Your task to perform on an android device: turn on location history Image 0: 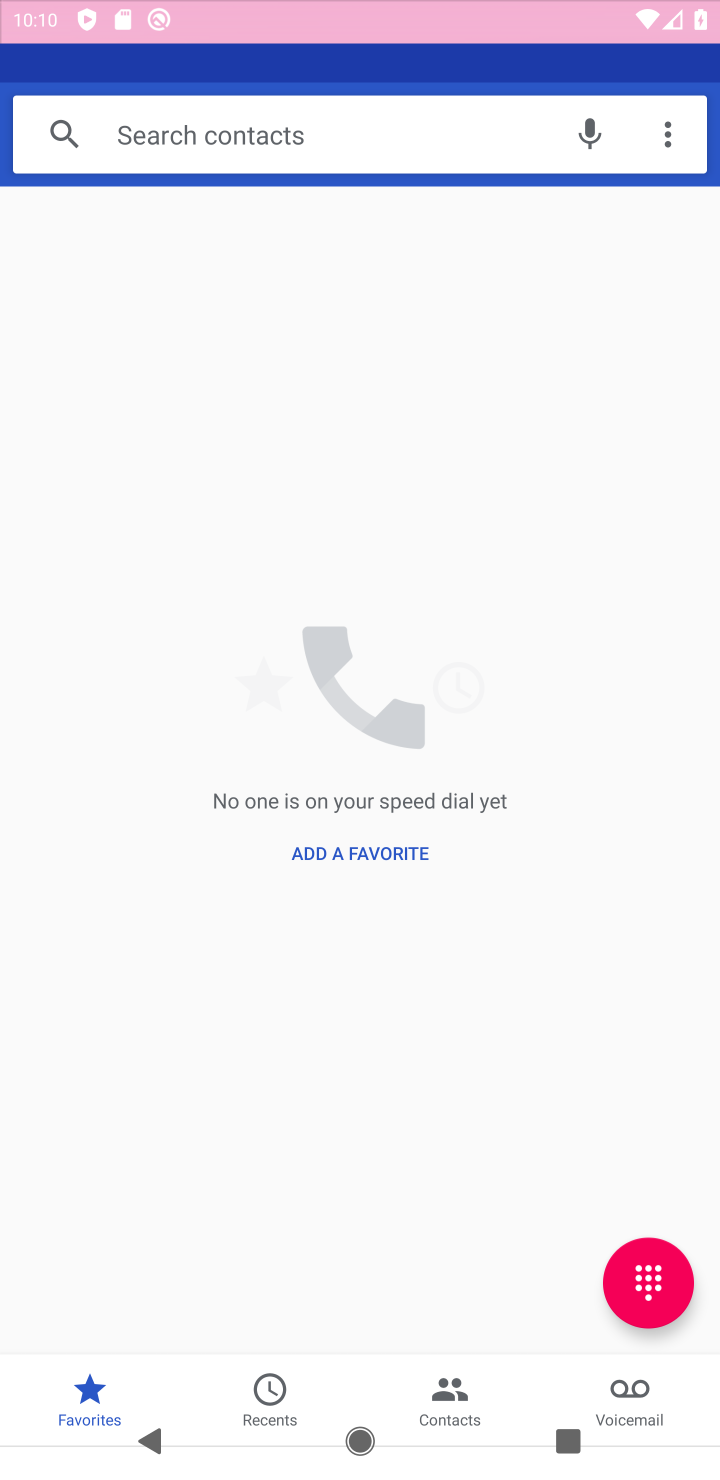
Step 0: press home button
Your task to perform on an android device: turn on location history Image 1: 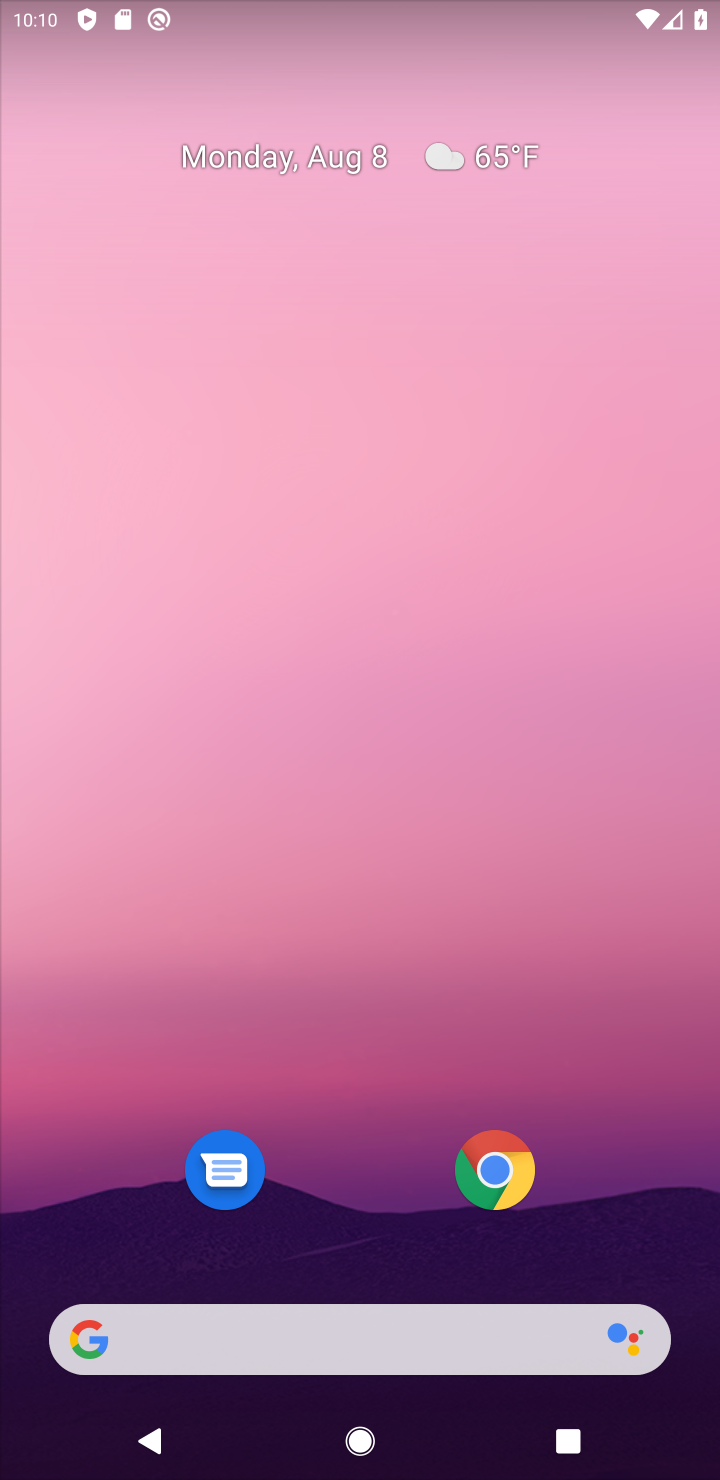
Step 1: drag from (323, 1248) to (344, 375)
Your task to perform on an android device: turn on location history Image 2: 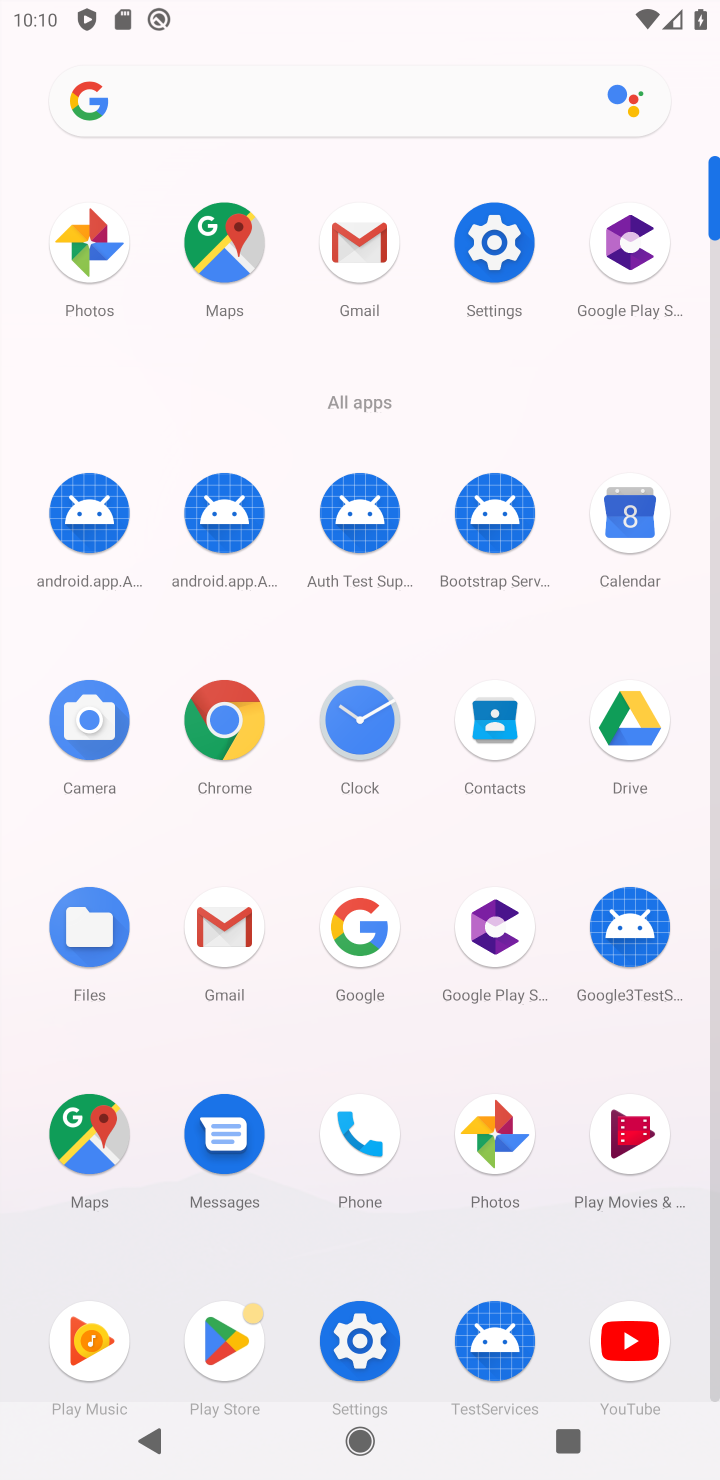
Step 2: click (495, 229)
Your task to perform on an android device: turn on location history Image 3: 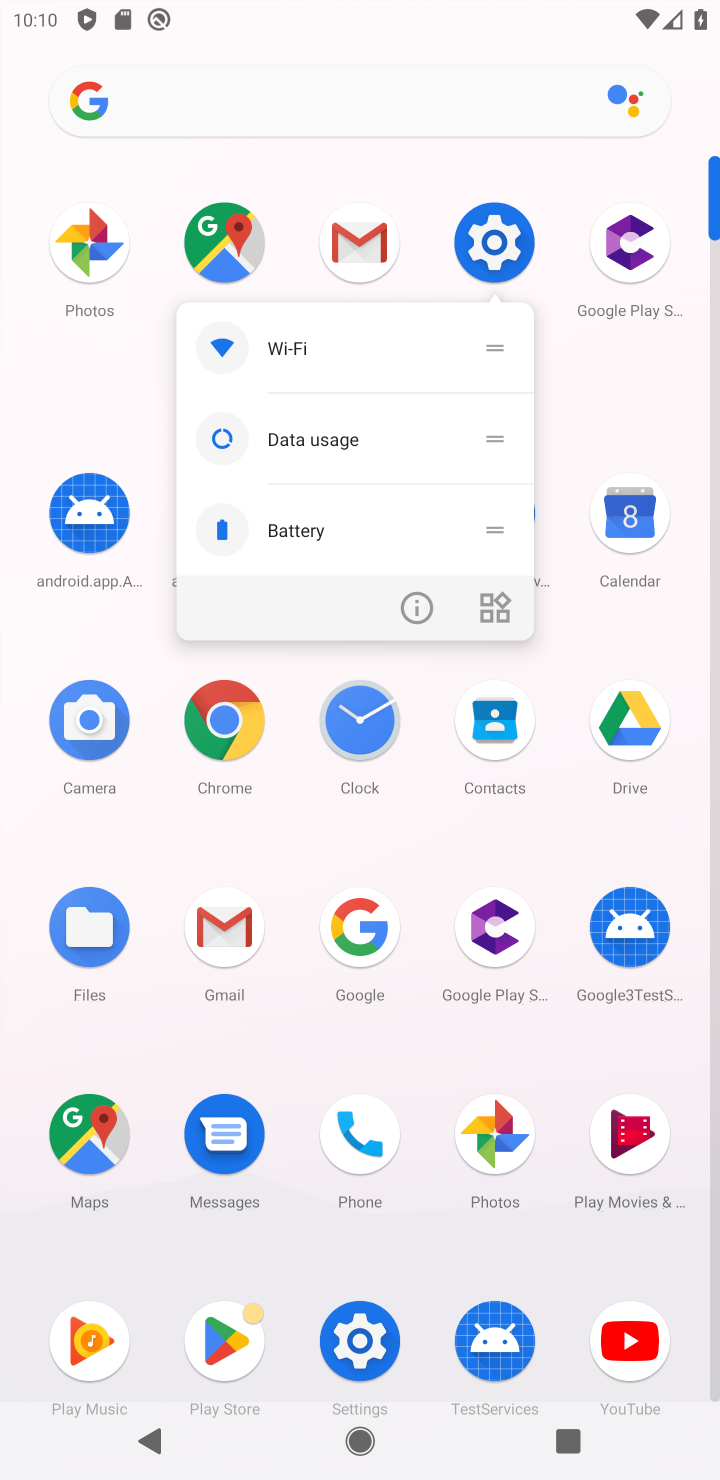
Step 3: click (495, 229)
Your task to perform on an android device: turn on location history Image 4: 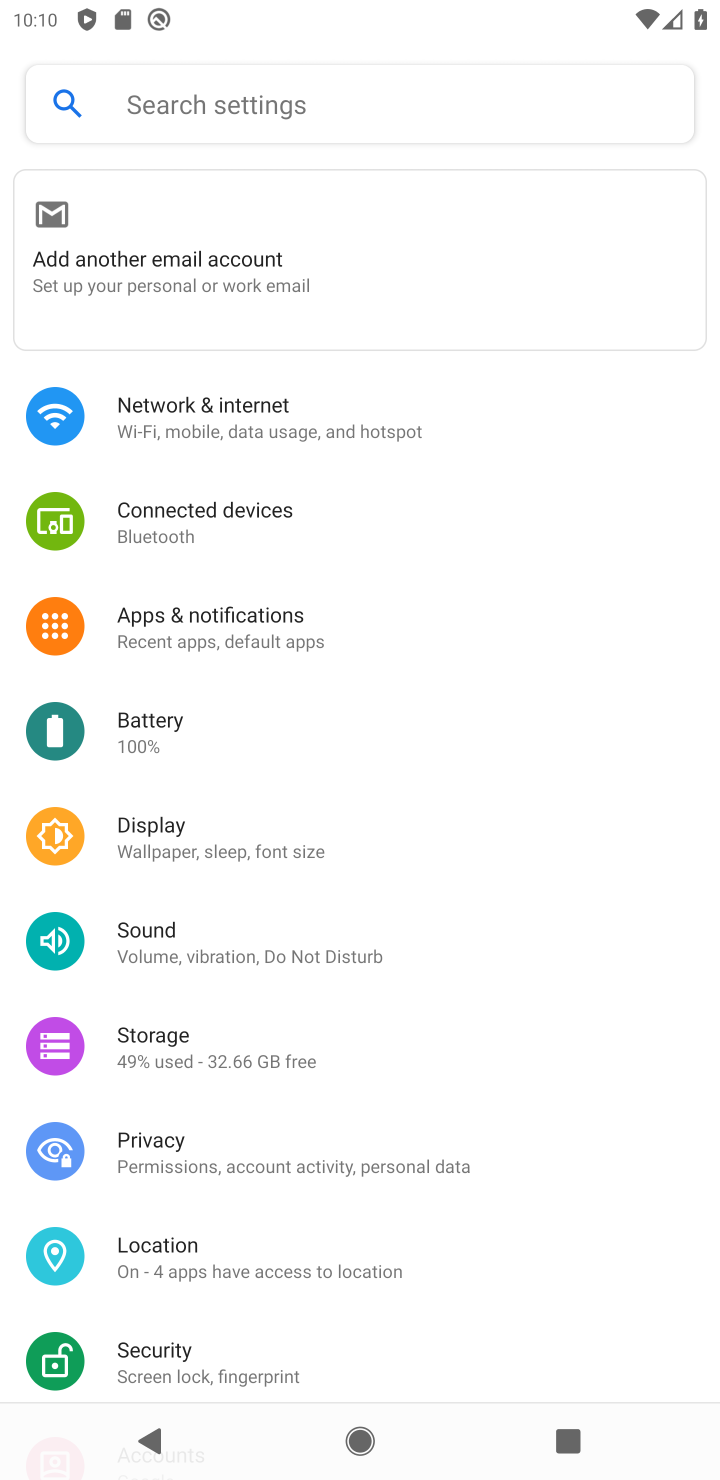
Step 4: click (186, 1263)
Your task to perform on an android device: turn on location history Image 5: 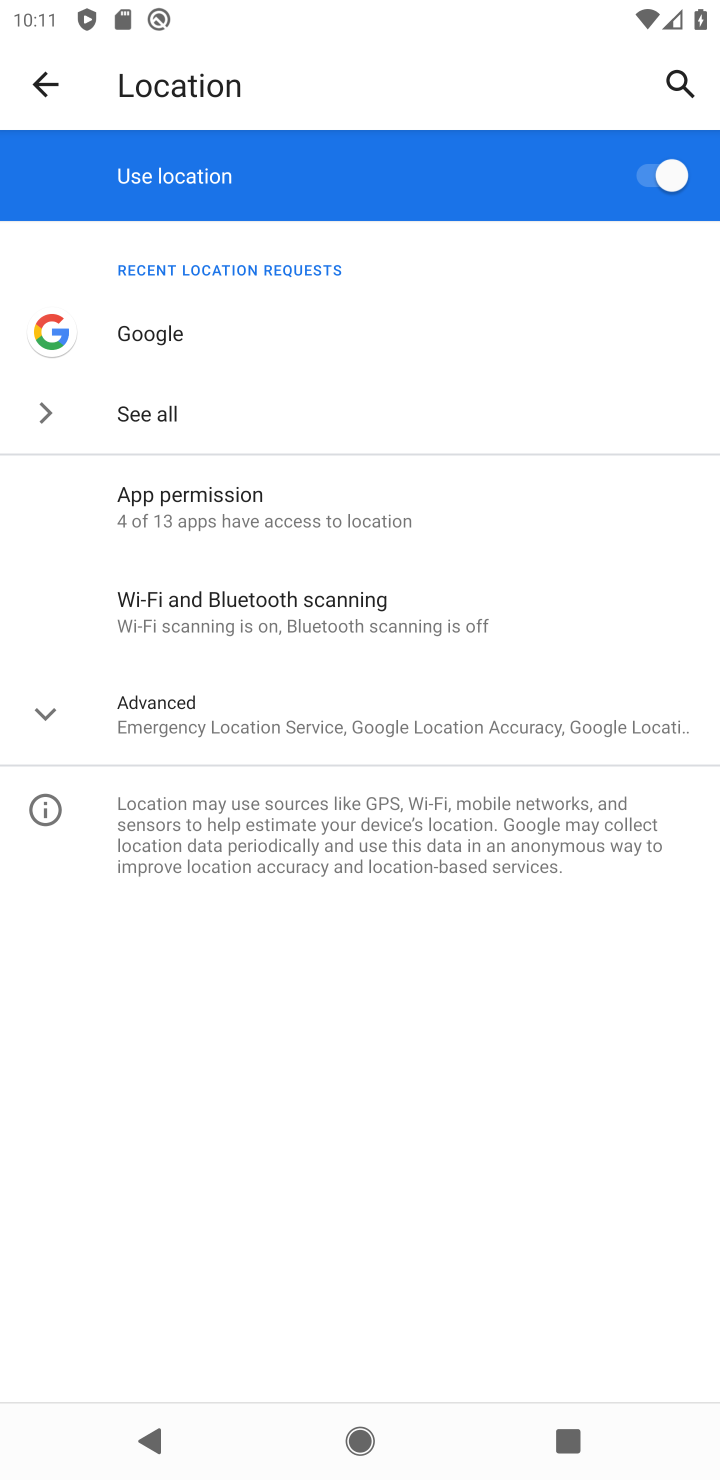
Step 5: click (163, 731)
Your task to perform on an android device: turn on location history Image 6: 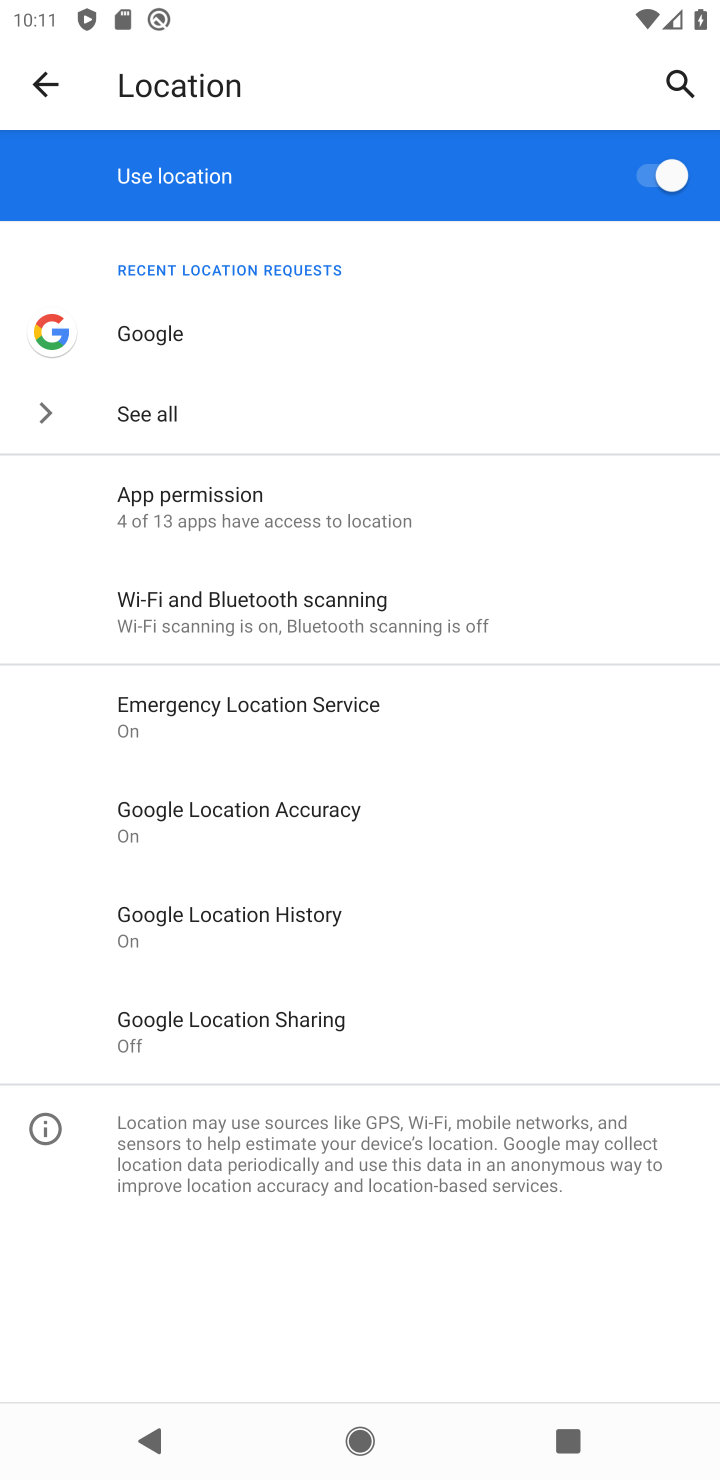
Step 6: click (249, 921)
Your task to perform on an android device: turn on location history Image 7: 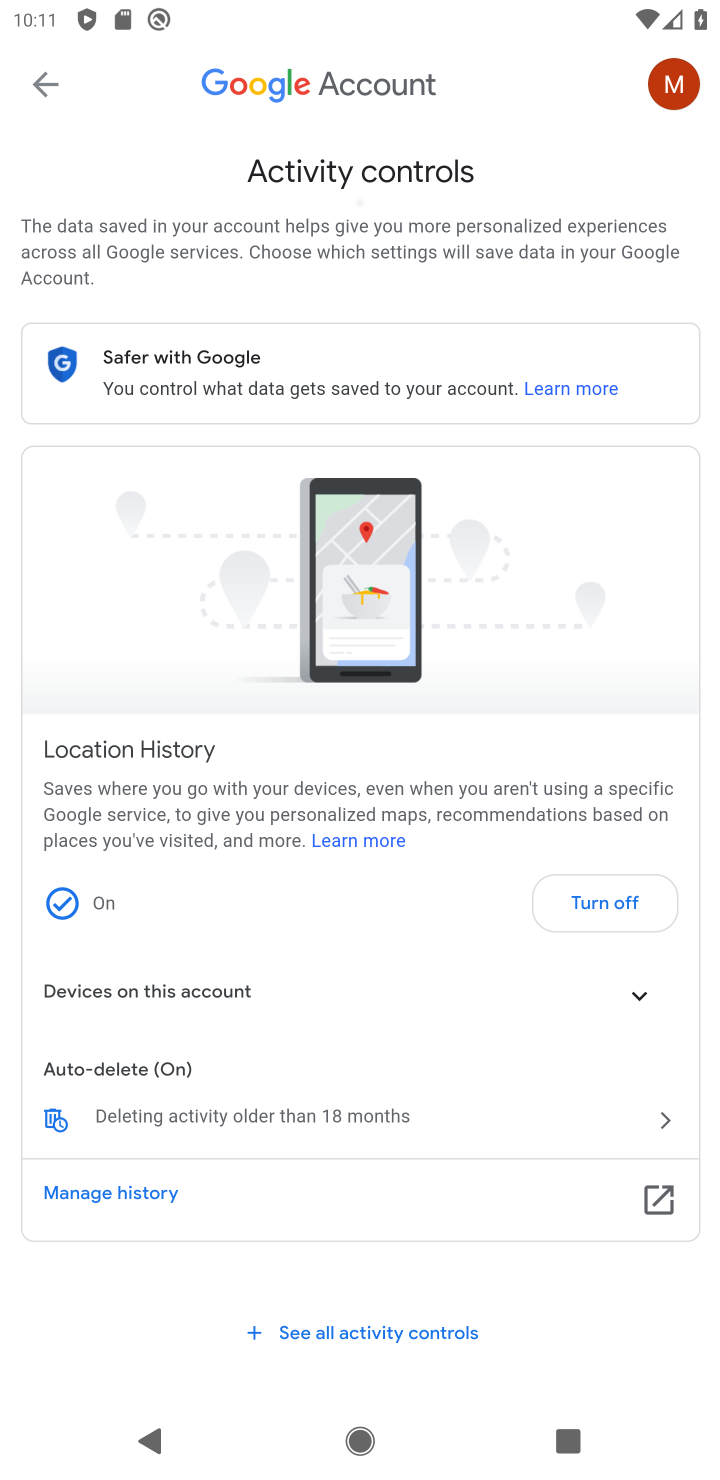
Step 7: task complete